Your task to perform on an android device: Find coffee shops on Maps Image 0: 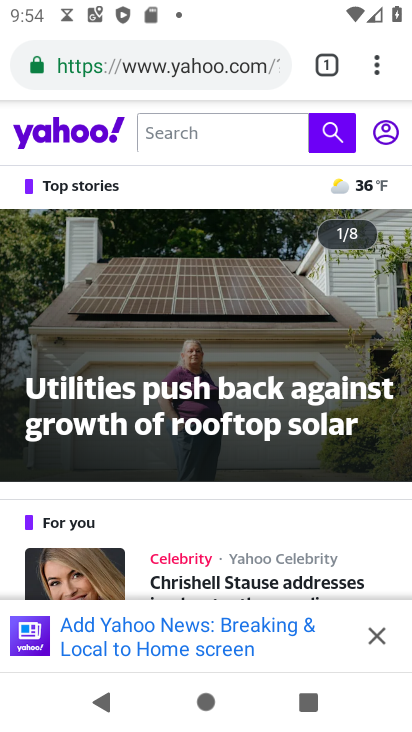
Step 0: press home button
Your task to perform on an android device: Find coffee shops on Maps Image 1: 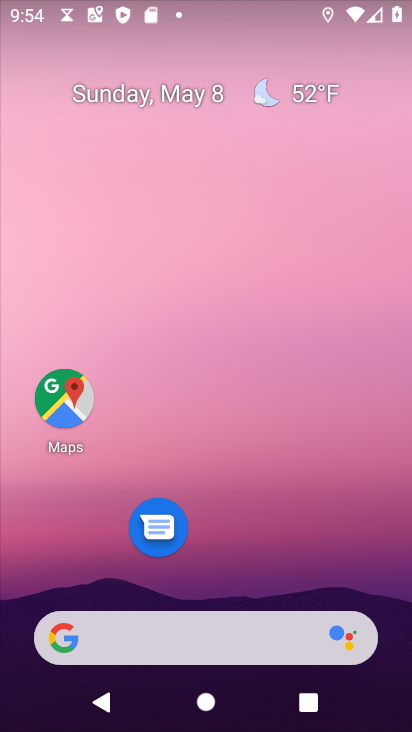
Step 1: drag from (241, 534) to (150, 20)
Your task to perform on an android device: Find coffee shops on Maps Image 2: 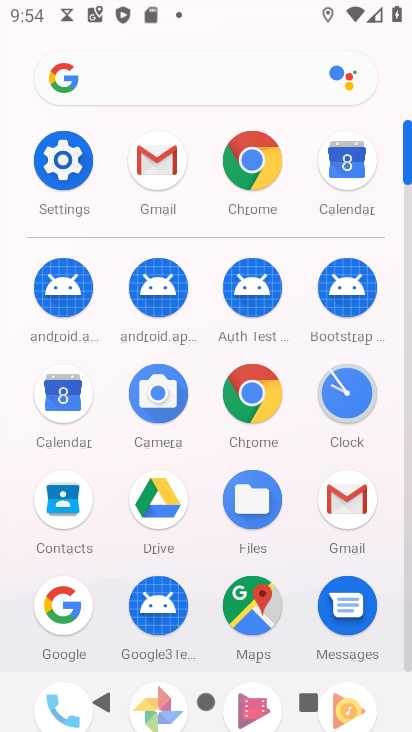
Step 2: click (252, 610)
Your task to perform on an android device: Find coffee shops on Maps Image 3: 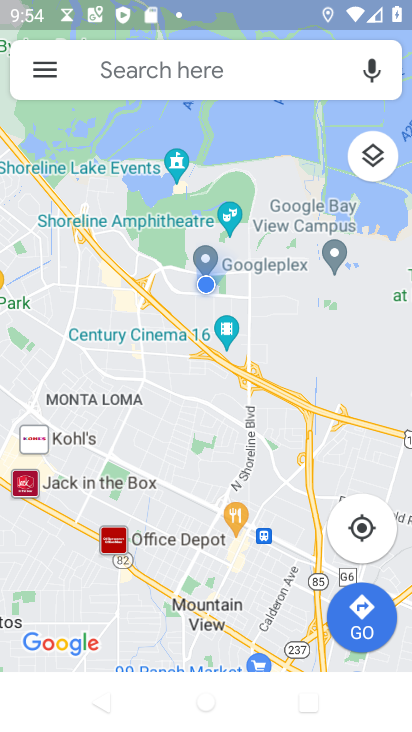
Step 3: click (188, 79)
Your task to perform on an android device: Find coffee shops on Maps Image 4: 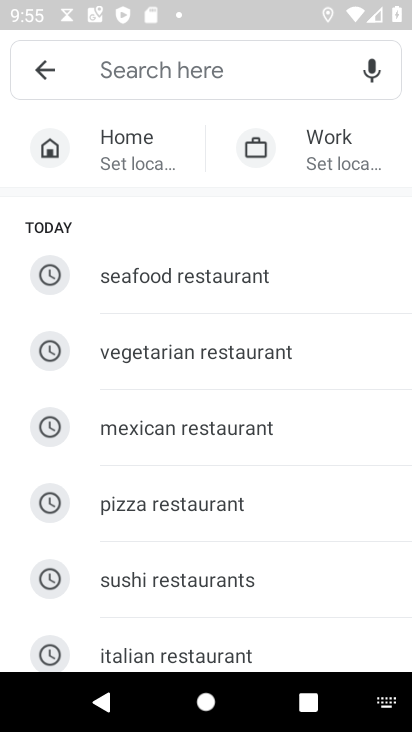
Step 4: type "coffee shops"
Your task to perform on an android device: Find coffee shops on Maps Image 5: 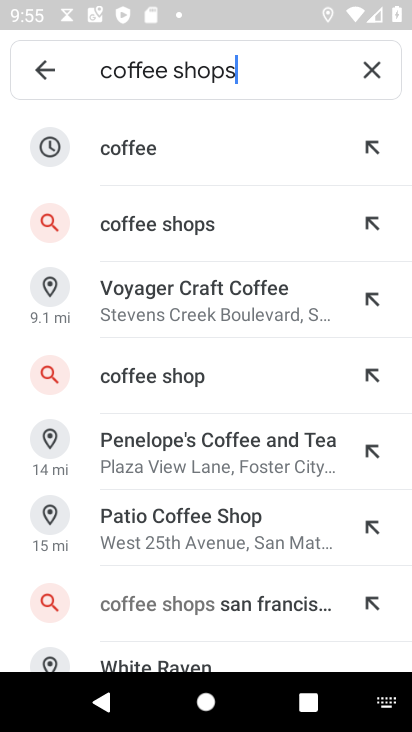
Step 5: click (186, 228)
Your task to perform on an android device: Find coffee shops on Maps Image 6: 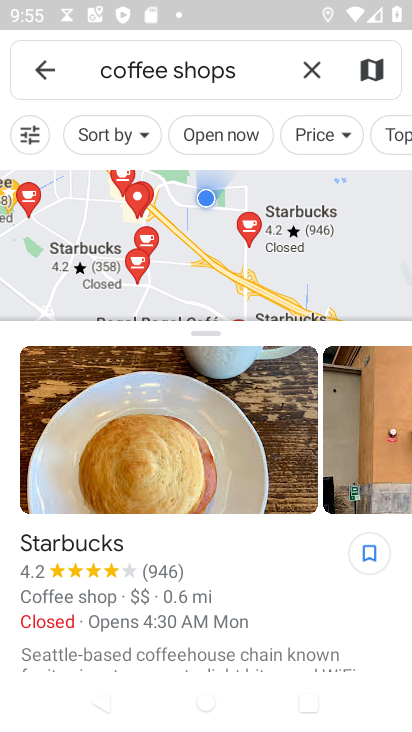
Step 6: task complete